Your task to perform on an android device: open device folders in google photos Image 0: 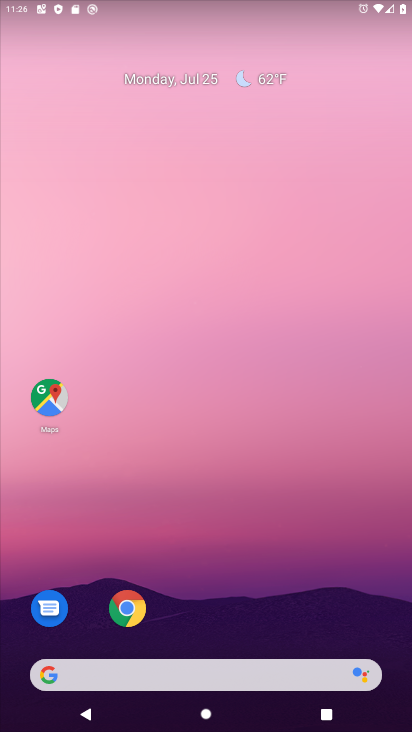
Step 0: drag from (230, 595) to (232, 81)
Your task to perform on an android device: open device folders in google photos Image 1: 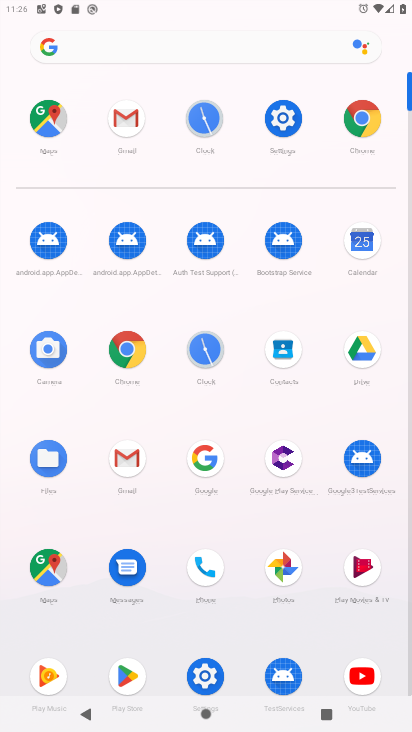
Step 1: click (270, 575)
Your task to perform on an android device: open device folders in google photos Image 2: 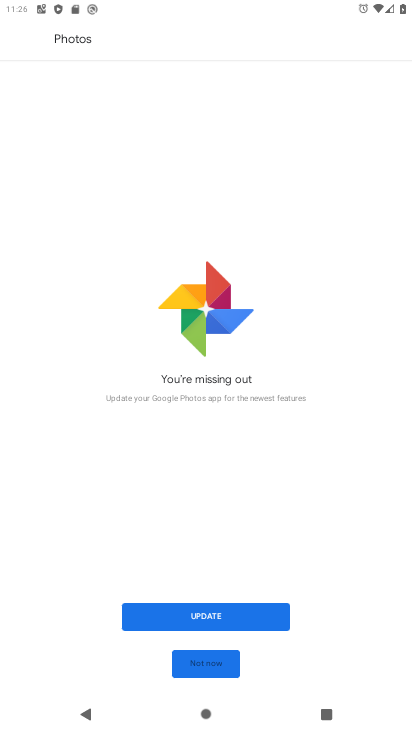
Step 2: click (214, 656)
Your task to perform on an android device: open device folders in google photos Image 3: 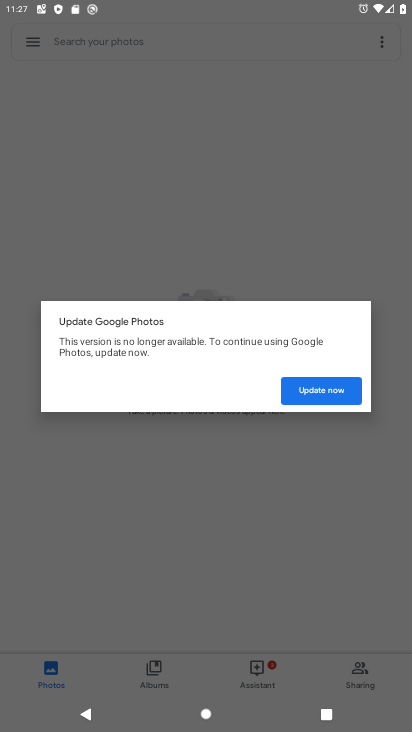
Step 3: click (328, 393)
Your task to perform on an android device: open device folders in google photos Image 4: 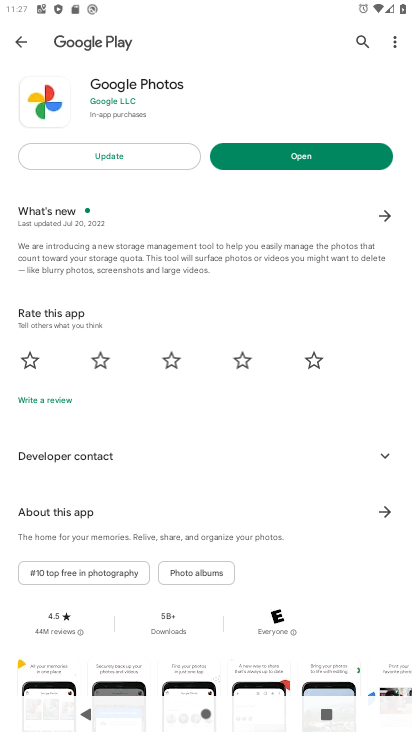
Step 4: click (290, 156)
Your task to perform on an android device: open device folders in google photos Image 5: 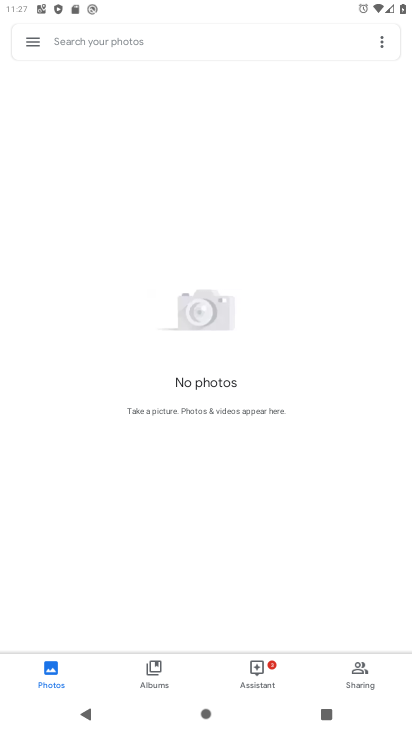
Step 5: click (25, 37)
Your task to perform on an android device: open device folders in google photos Image 6: 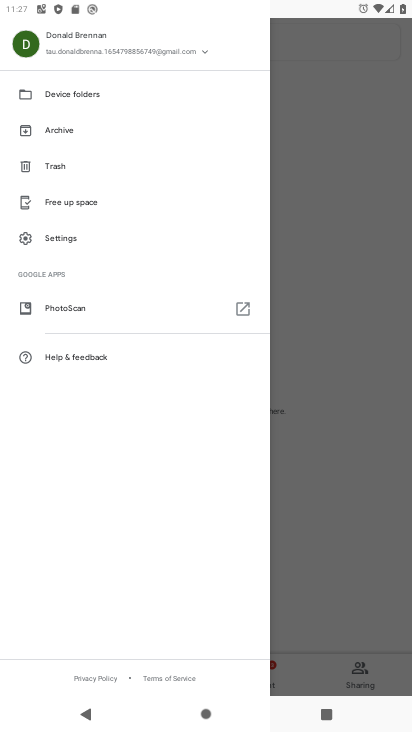
Step 6: click (96, 88)
Your task to perform on an android device: open device folders in google photos Image 7: 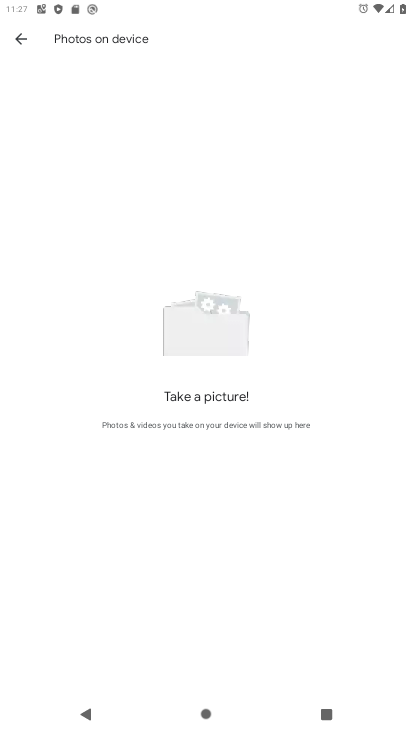
Step 7: task complete